Your task to perform on an android device: install app "Instagram" Image 0: 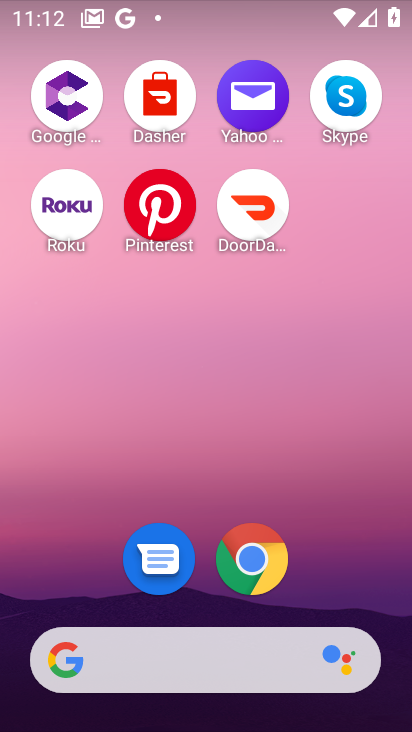
Step 0: drag from (100, 520) to (180, 82)
Your task to perform on an android device: install app "Instagram" Image 1: 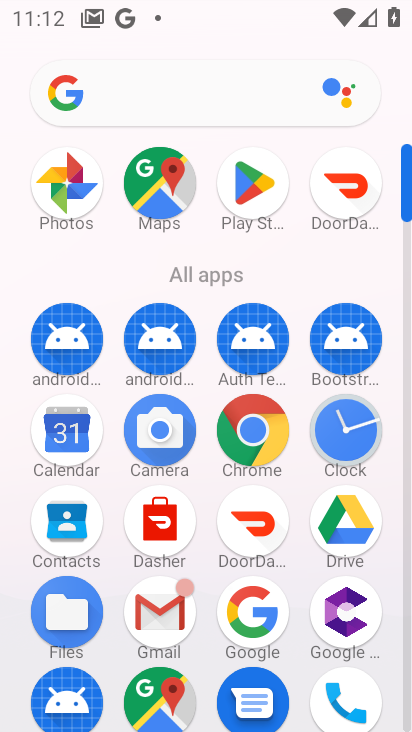
Step 1: click (252, 192)
Your task to perform on an android device: install app "Instagram" Image 2: 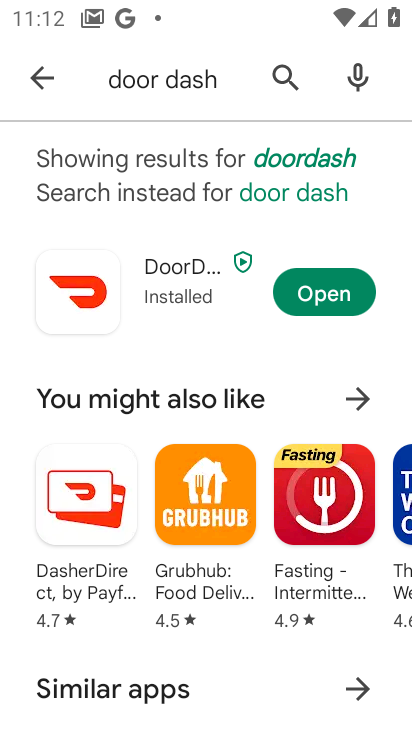
Step 2: click (294, 75)
Your task to perform on an android device: install app "Instagram" Image 3: 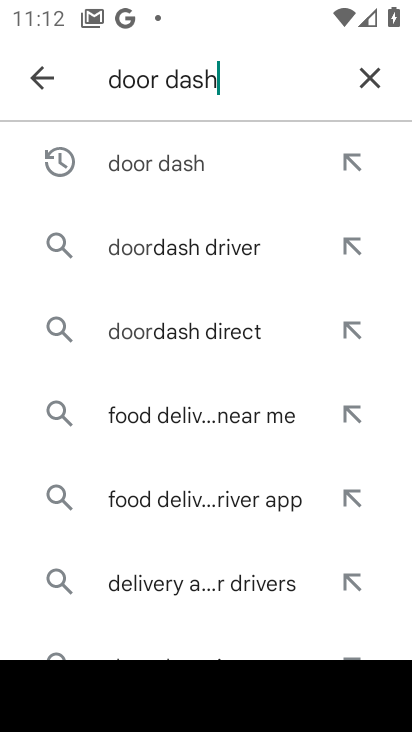
Step 3: click (361, 78)
Your task to perform on an android device: install app "Instagram" Image 4: 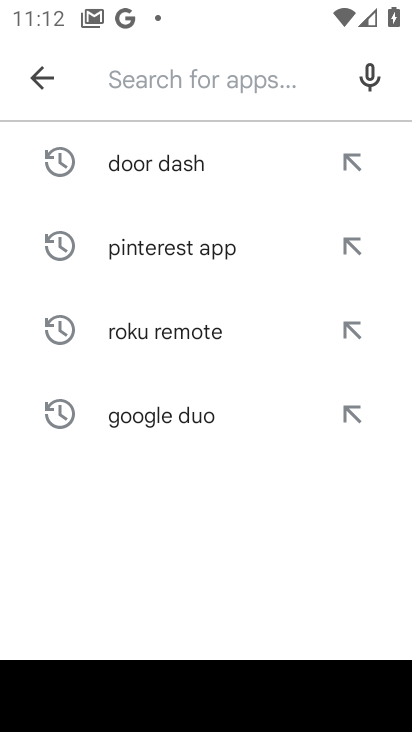
Step 4: click (185, 73)
Your task to perform on an android device: install app "Instagram" Image 5: 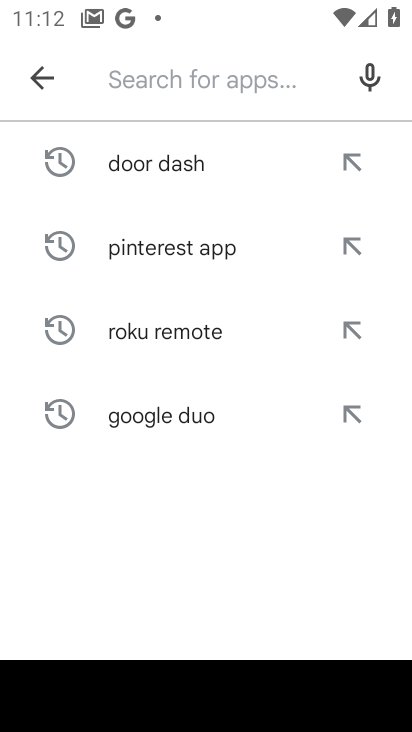
Step 5: click (185, 73)
Your task to perform on an android device: install app "Instagram" Image 6: 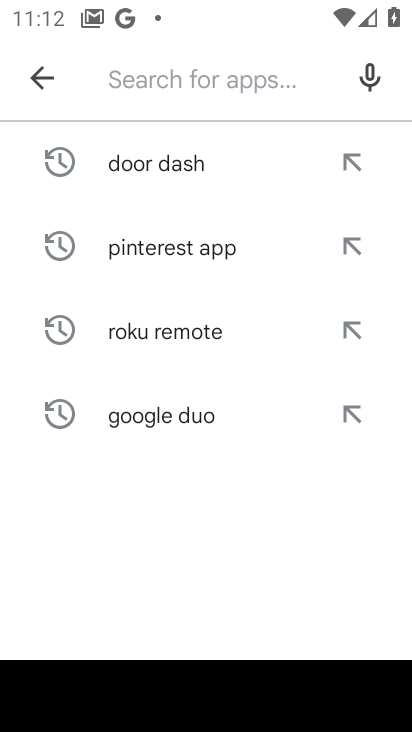
Step 6: type "instagram"
Your task to perform on an android device: install app "Instagram" Image 7: 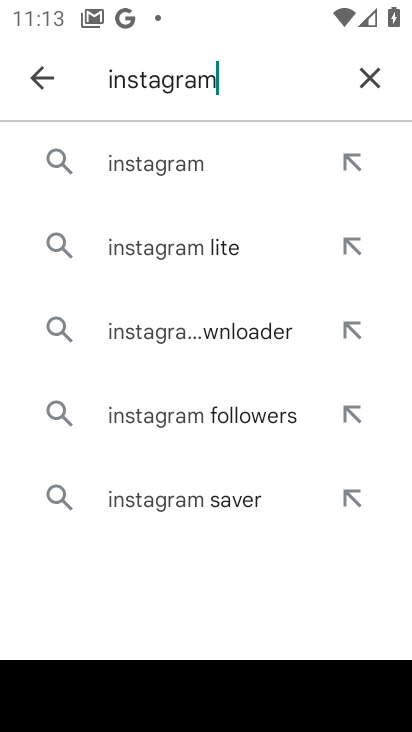
Step 7: click (192, 168)
Your task to perform on an android device: install app "Instagram" Image 8: 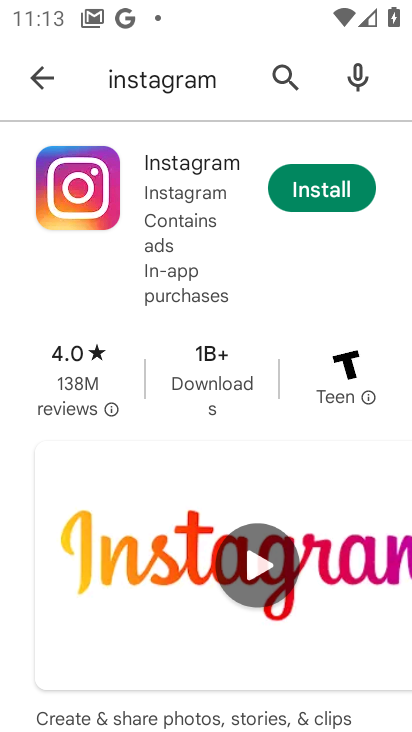
Step 8: click (303, 187)
Your task to perform on an android device: install app "Instagram" Image 9: 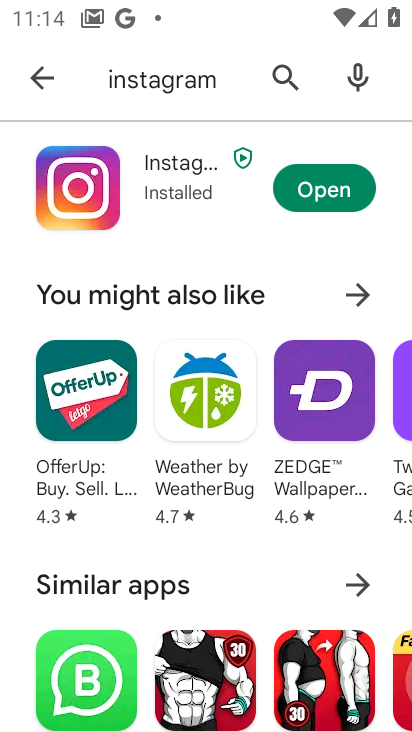
Step 9: click (321, 190)
Your task to perform on an android device: install app "Instagram" Image 10: 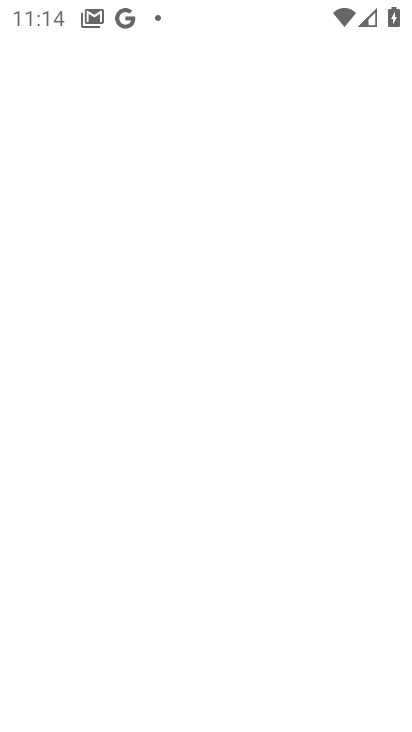
Step 10: task complete